Your task to perform on an android device: Check the news Image 0: 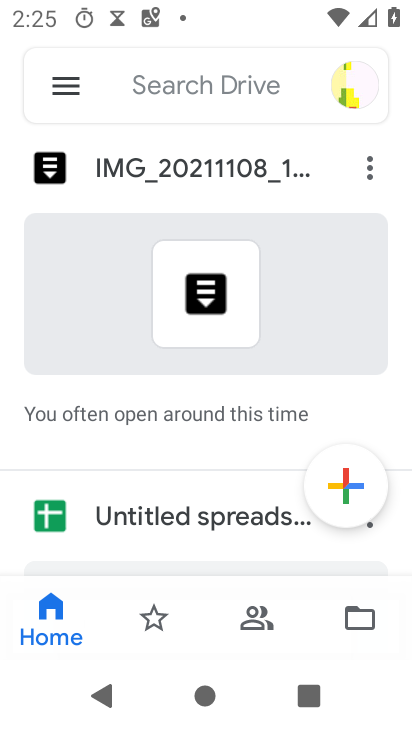
Step 0: press home button
Your task to perform on an android device: Check the news Image 1: 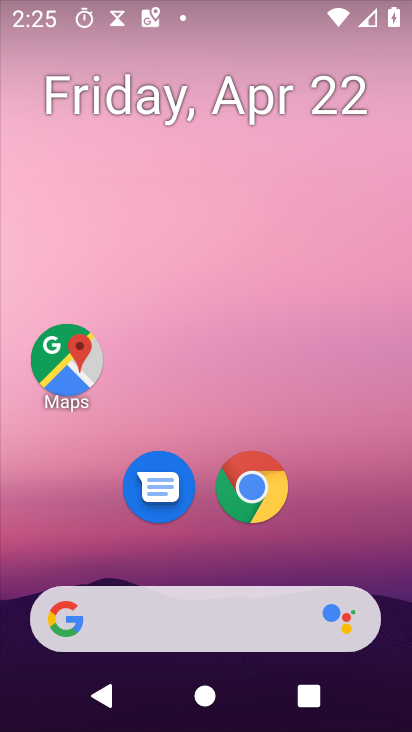
Step 1: task complete